Your task to perform on an android device: visit the assistant section in the google photos Image 0: 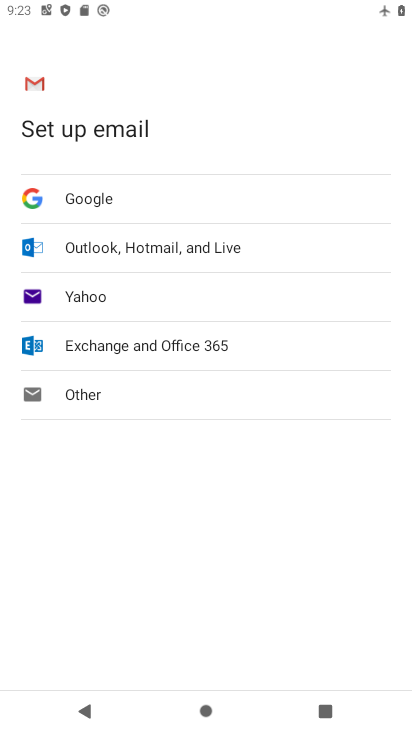
Step 0: press home button
Your task to perform on an android device: visit the assistant section in the google photos Image 1: 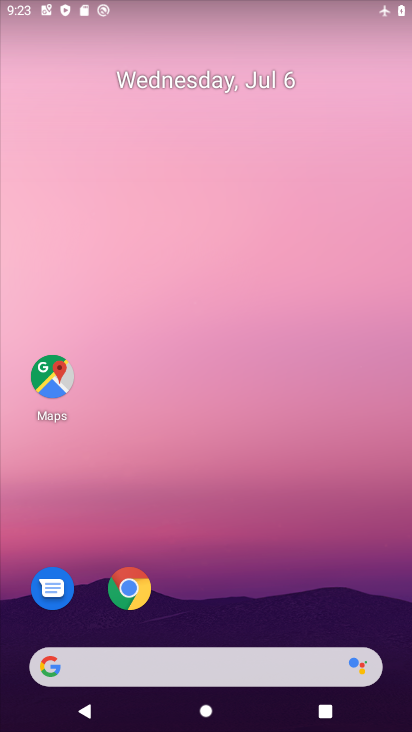
Step 1: drag from (190, 669) to (302, 198)
Your task to perform on an android device: visit the assistant section in the google photos Image 2: 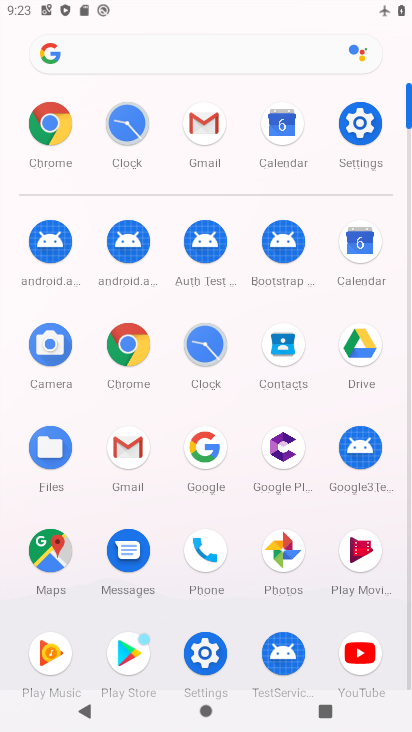
Step 2: click (283, 554)
Your task to perform on an android device: visit the assistant section in the google photos Image 3: 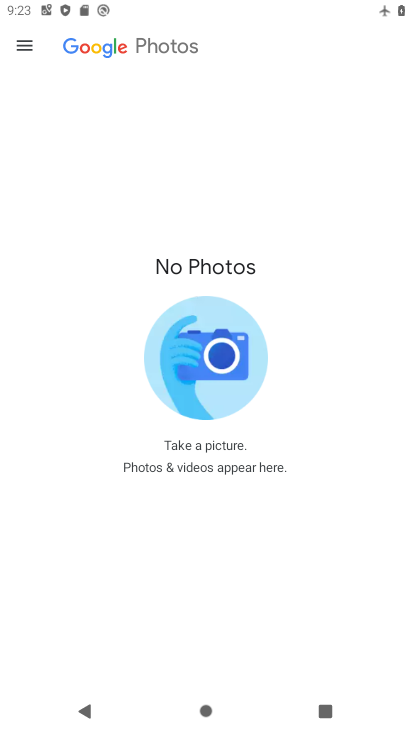
Step 3: click (21, 52)
Your task to perform on an android device: visit the assistant section in the google photos Image 4: 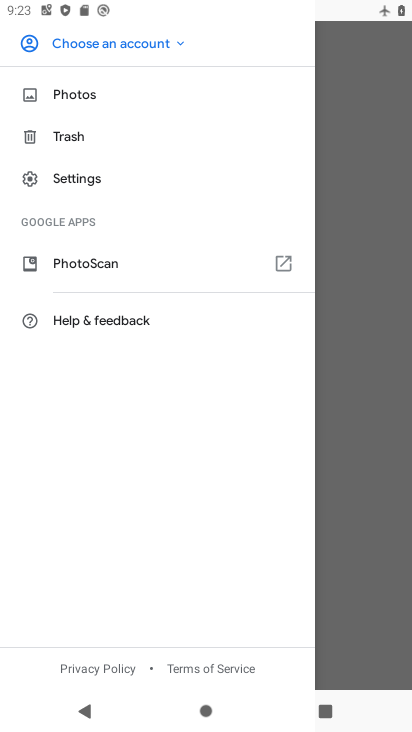
Step 4: click (86, 177)
Your task to perform on an android device: visit the assistant section in the google photos Image 5: 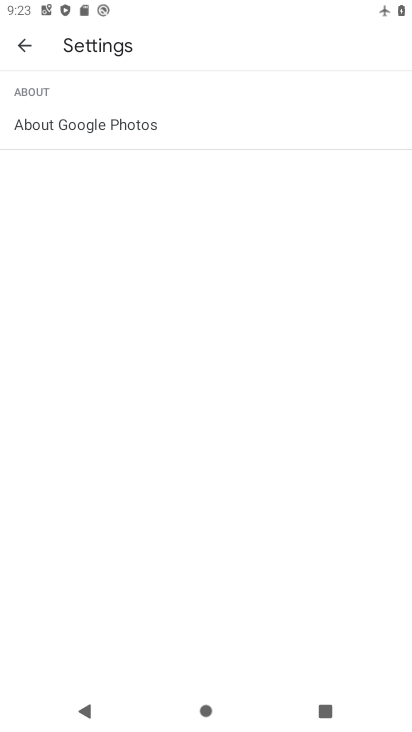
Step 5: task complete